Your task to perform on an android device: turn on the 24-hour format for clock Image 0: 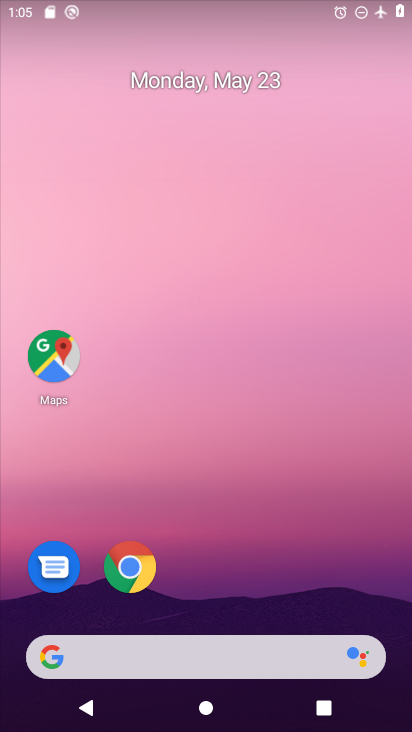
Step 0: drag from (200, 567) to (191, 170)
Your task to perform on an android device: turn on the 24-hour format for clock Image 1: 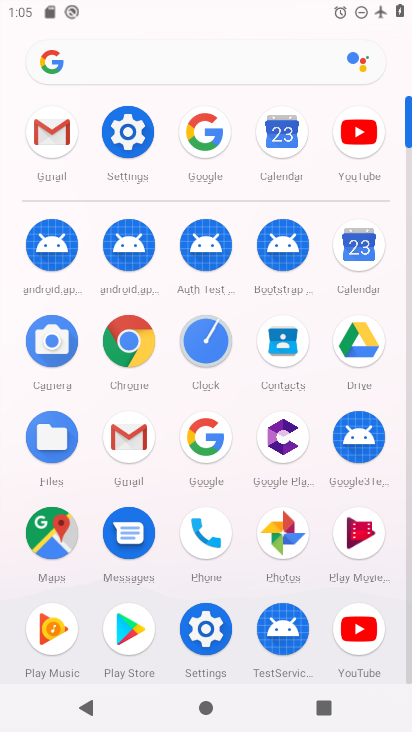
Step 1: click (199, 353)
Your task to perform on an android device: turn on the 24-hour format for clock Image 2: 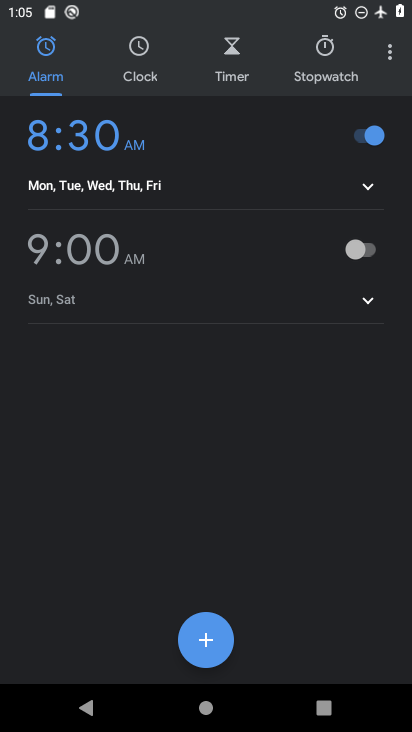
Step 2: click (383, 58)
Your task to perform on an android device: turn on the 24-hour format for clock Image 3: 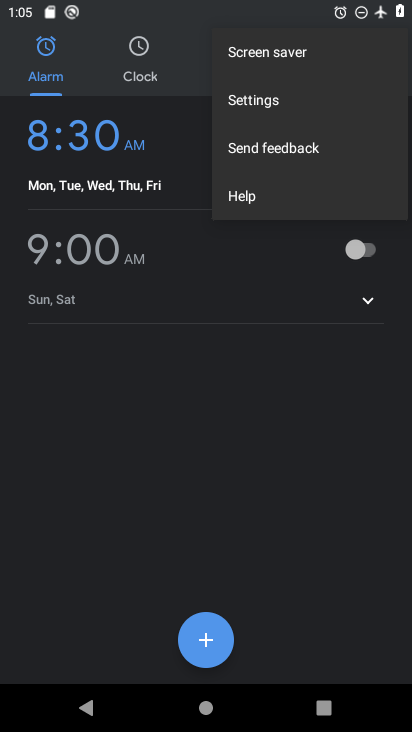
Step 3: click (262, 111)
Your task to perform on an android device: turn on the 24-hour format for clock Image 4: 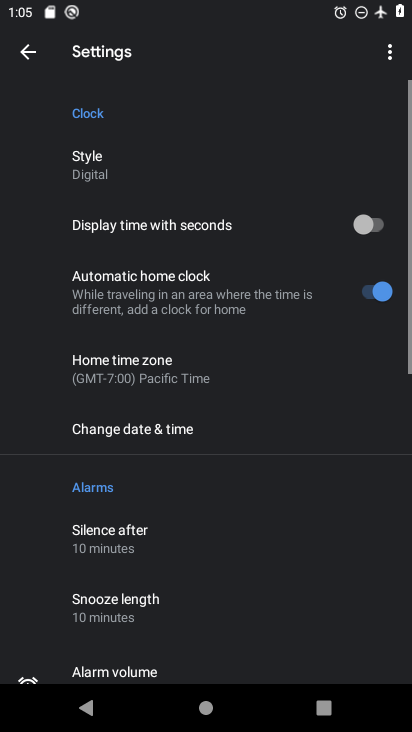
Step 4: drag from (247, 627) to (231, 406)
Your task to perform on an android device: turn on the 24-hour format for clock Image 5: 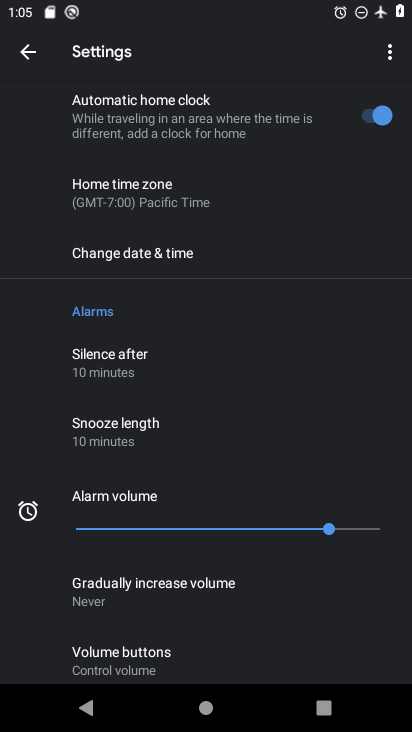
Step 5: drag from (210, 562) to (207, 416)
Your task to perform on an android device: turn on the 24-hour format for clock Image 6: 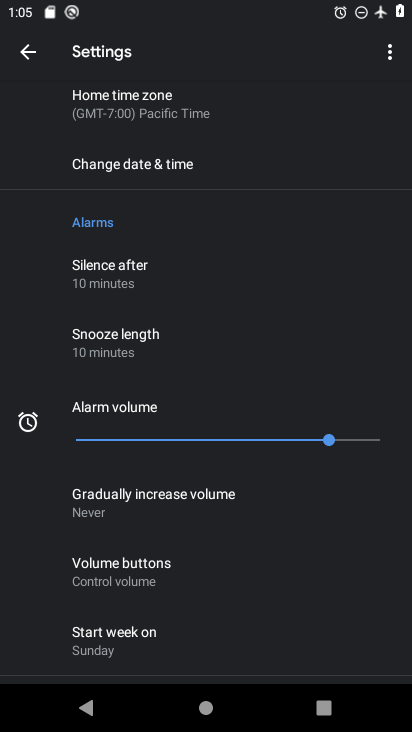
Step 6: drag from (207, 205) to (220, 305)
Your task to perform on an android device: turn on the 24-hour format for clock Image 7: 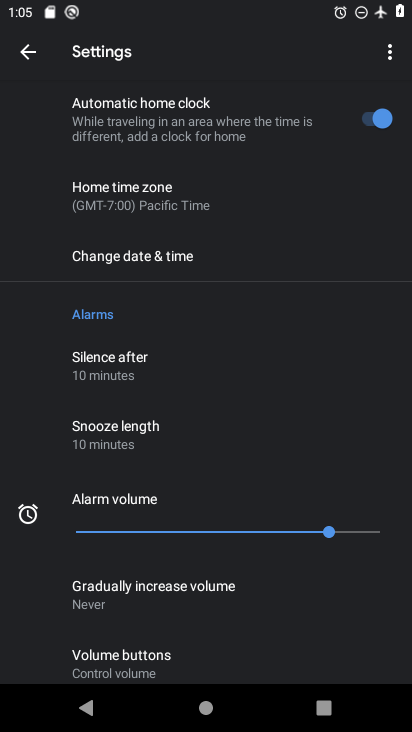
Step 7: click (200, 273)
Your task to perform on an android device: turn on the 24-hour format for clock Image 8: 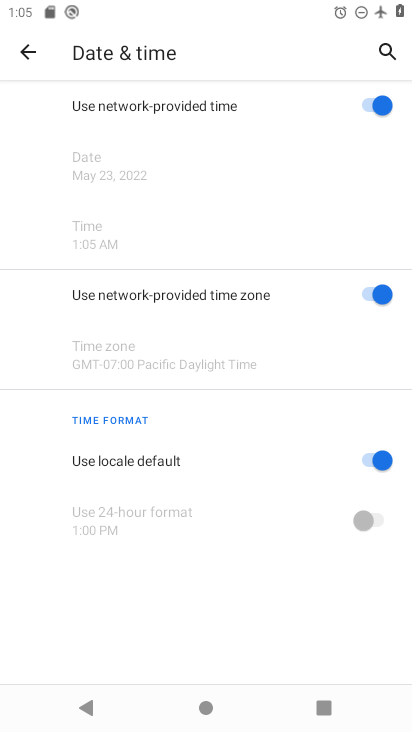
Step 8: click (372, 467)
Your task to perform on an android device: turn on the 24-hour format for clock Image 9: 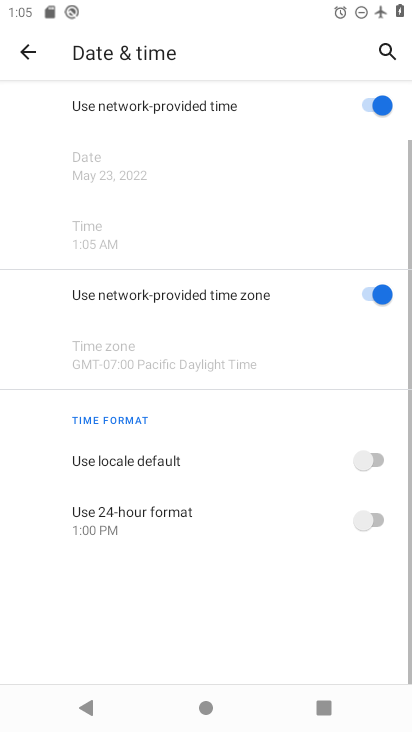
Step 9: click (386, 529)
Your task to perform on an android device: turn on the 24-hour format for clock Image 10: 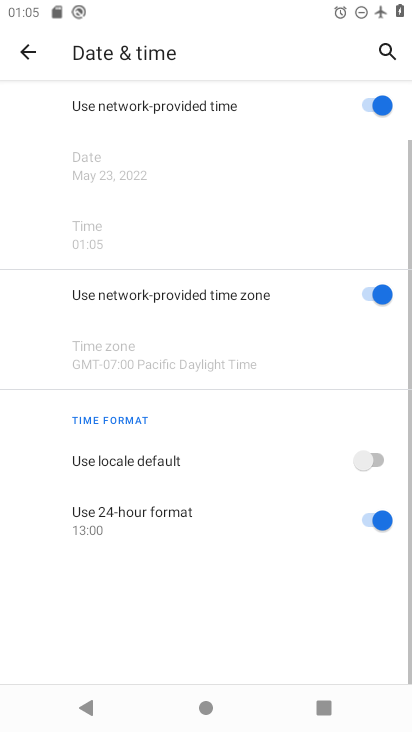
Step 10: task complete